Your task to perform on an android device: turn off wifi Image 0: 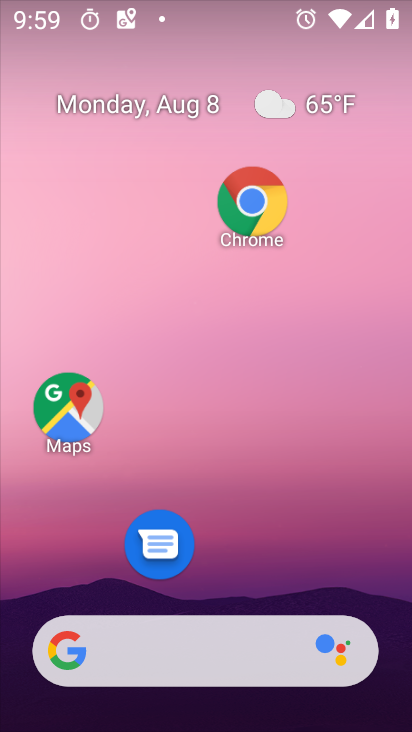
Step 0: press home button
Your task to perform on an android device: turn off wifi Image 1: 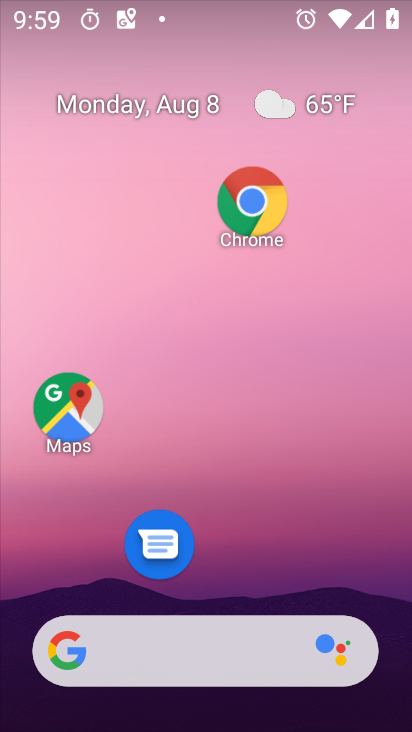
Step 1: drag from (280, 574) to (310, 29)
Your task to perform on an android device: turn off wifi Image 2: 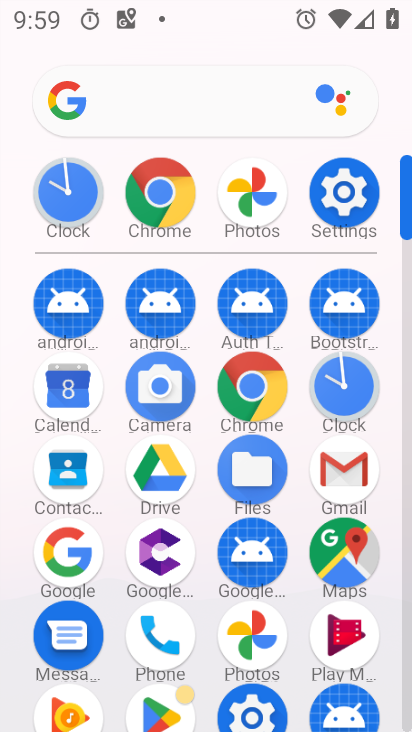
Step 2: click (343, 190)
Your task to perform on an android device: turn off wifi Image 3: 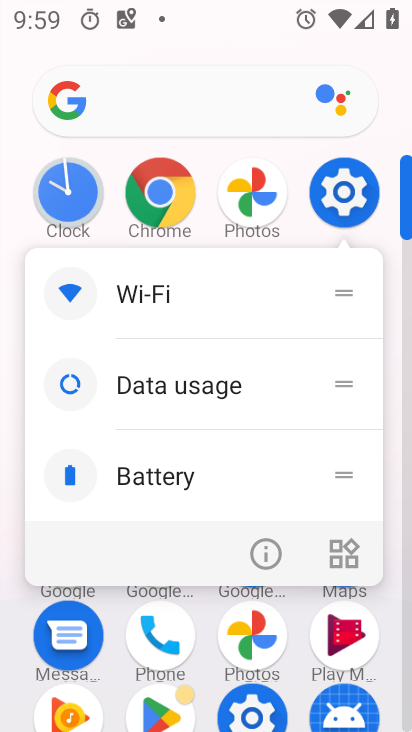
Step 3: click (341, 186)
Your task to perform on an android device: turn off wifi Image 4: 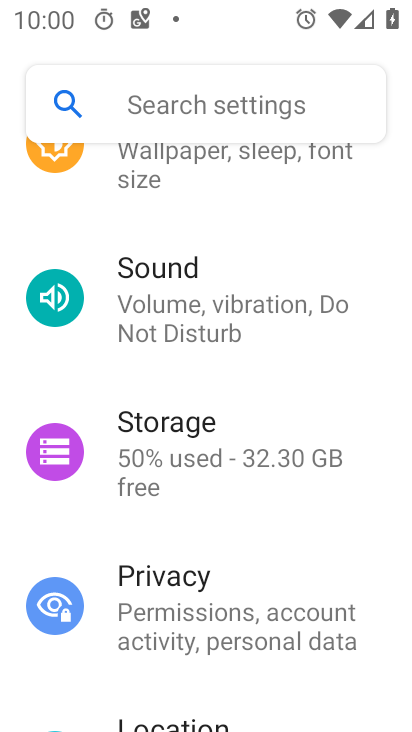
Step 4: drag from (204, 179) to (240, 656)
Your task to perform on an android device: turn off wifi Image 5: 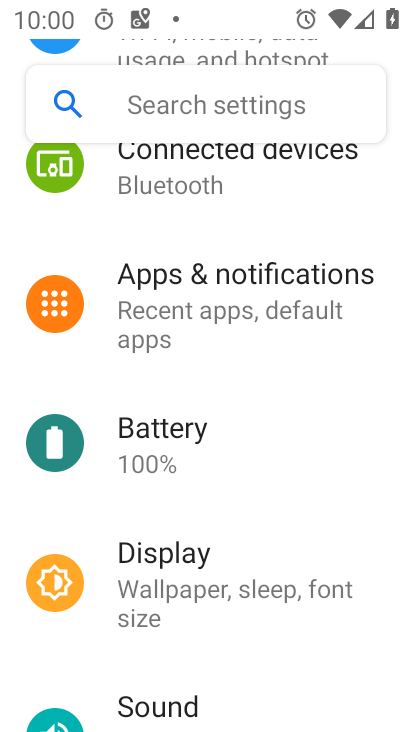
Step 5: drag from (222, 173) to (243, 731)
Your task to perform on an android device: turn off wifi Image 6: 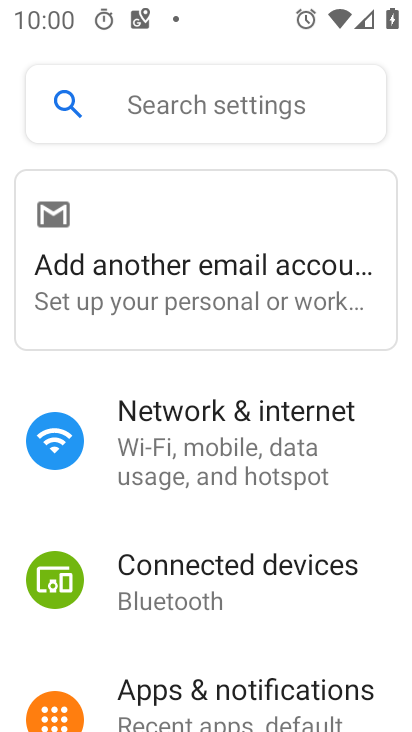
Step 6: click (199, 439)
Your task to perform on an android device: turn off wifi Image 7: 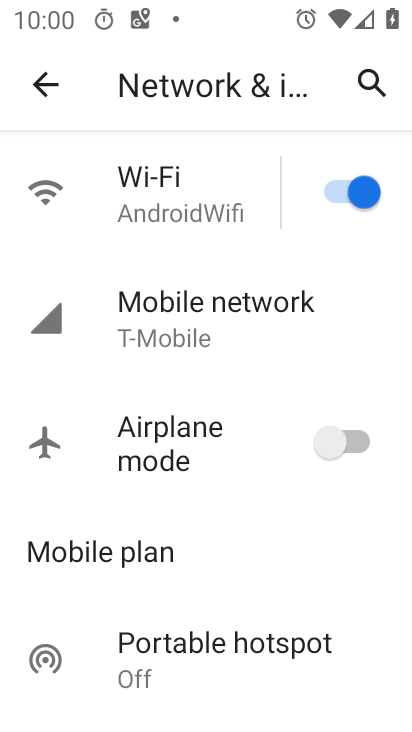
Step 7: click (337, 187)
Your task to perform on an android device: turn off wifi Image 8: 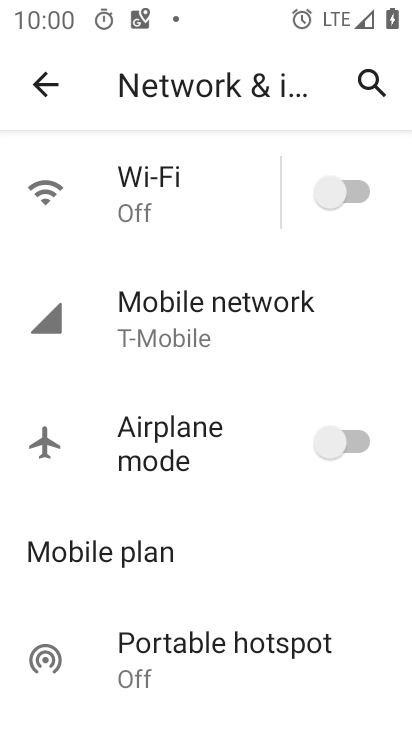
Step 8: task complete